Your task to perform on an android device: clear all cookies in the chrome app Image 0: 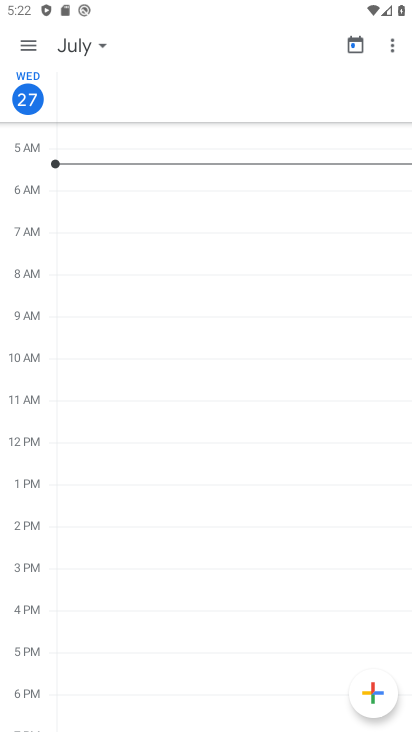
Step 0: drag from (226, 641) to (200, 74)
Your task to perform on an android device: clear all cookies in the chrome app Image 1: 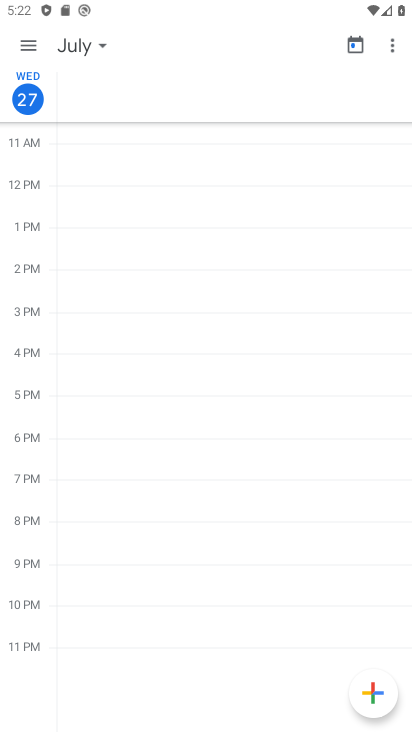
Step 1: press home button
Your task to perform on an android device: clear all cookies in the chrome app Image 2: 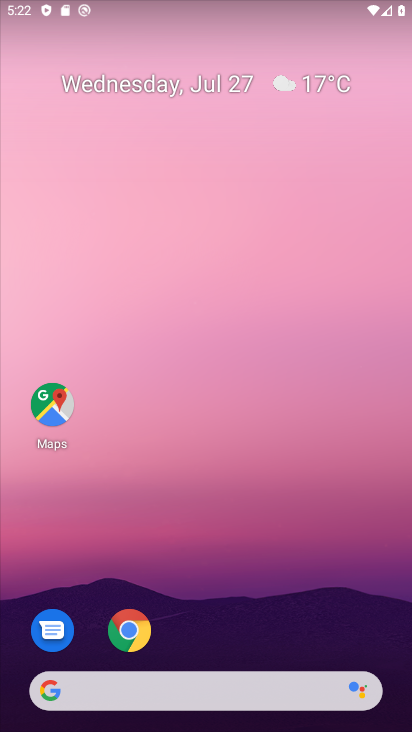
Step 2: click (127, 623)
Your task to perform on an android device: clear all cookies in the chrome app Image 3: 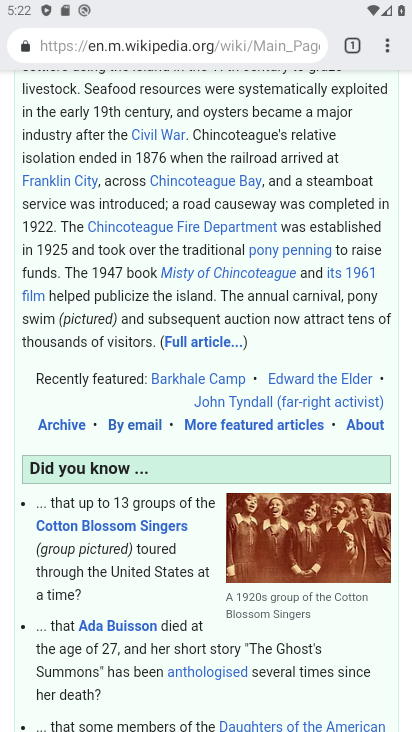
Step 3: click (388, 43)
Your task to perform on an android device: clear all cookies in the chrome app Image 4: 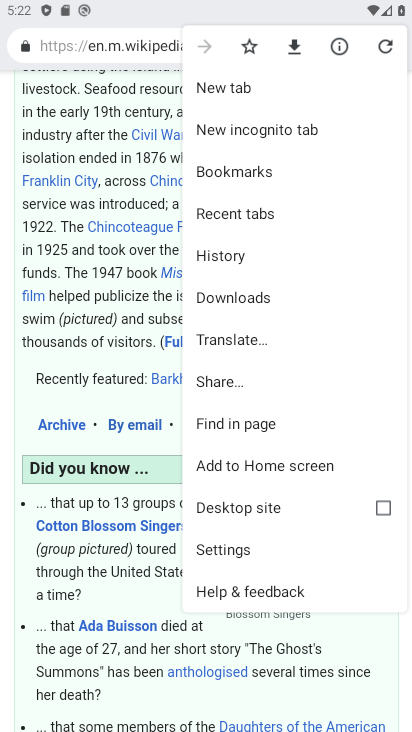
Step 4: click (259, 254)
Your task to perform on an android device: clear all cookies in the chrome app Image 5: 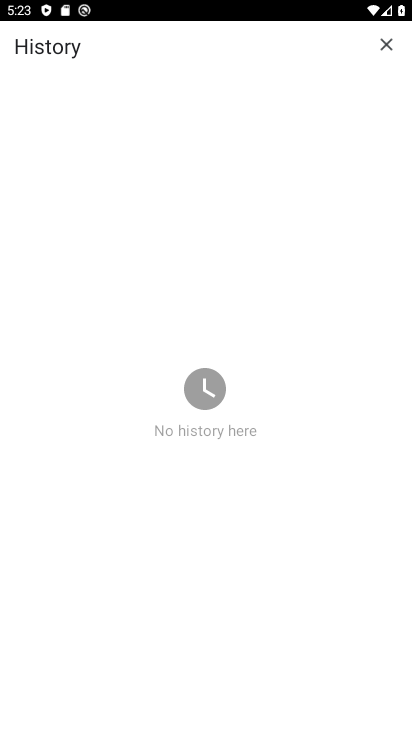
Step 5: task complete